Your task to perform on an android device: toggle data saver in the chrome app Image 0: 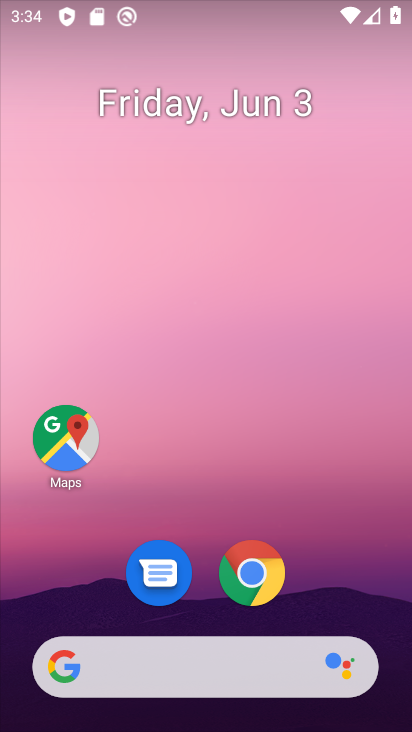
Step 0: click (234, 584)
Your task to perform on an android device: toggle data saver in the chrome app Image 1: 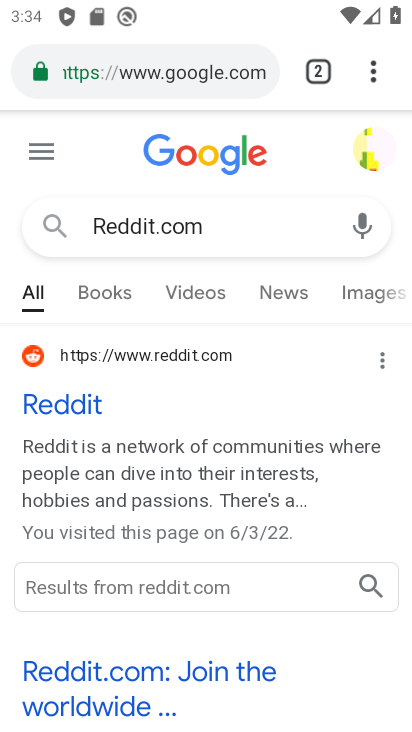
Step 1: click (371, 68)
Your task to perform on an android device: toggle data saver in the chrome app Image 2: 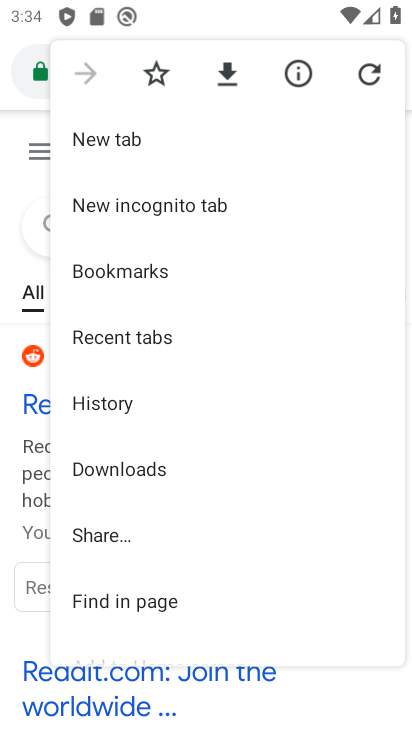
Step 2: drag from (252, 557) to (275, 247)
Your task to perform on an android device: toggle data saver in the chrome app Image 3: 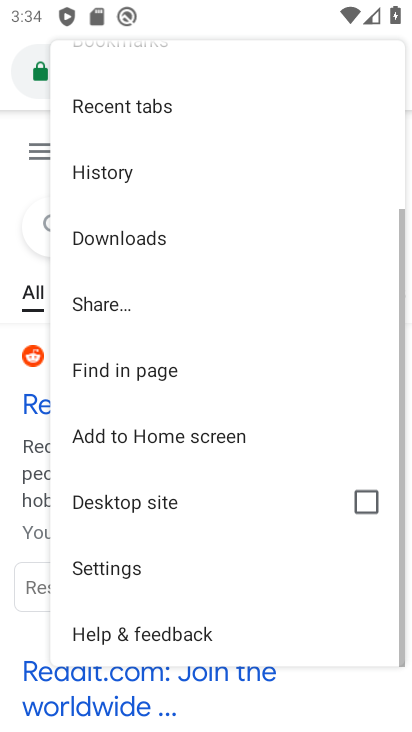
Step 3: click (103, 574)
Your task to perform on an android device: toggle data saver in the chrome app Image 4: 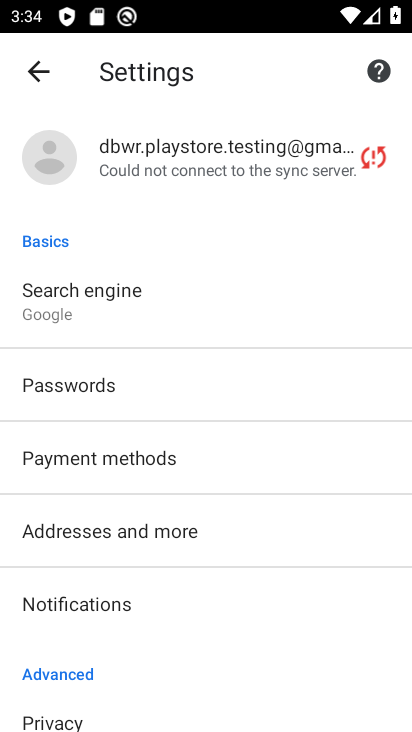
Step 4: drag from (261, 635) to (305, 267)
Your task to perform on an android device: toggle data saver in the chrome app Image 5: 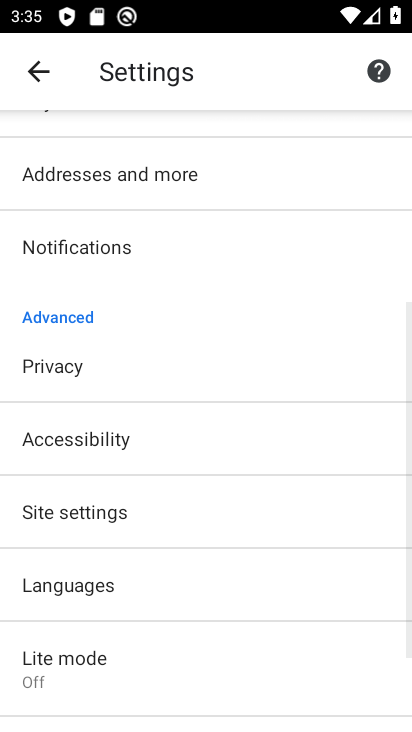
Step 5: click (51, 665)
Your task to perform on an android device: toggle data saver in the chrome app Image 6: 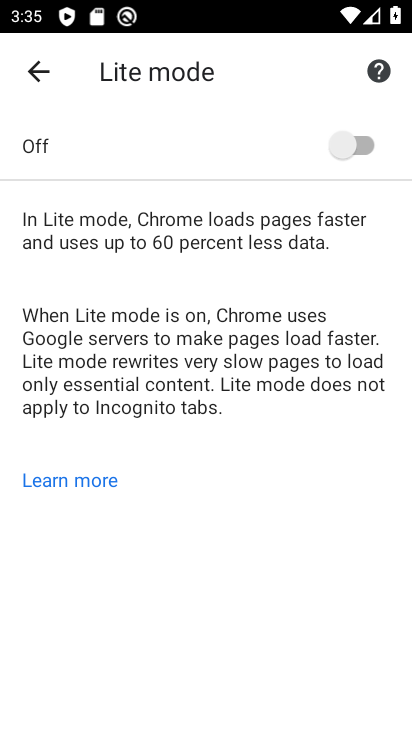
Step 6: click (355, 145)
Your task to perform on an android device: toggle data saver in the chrome app Image 7: 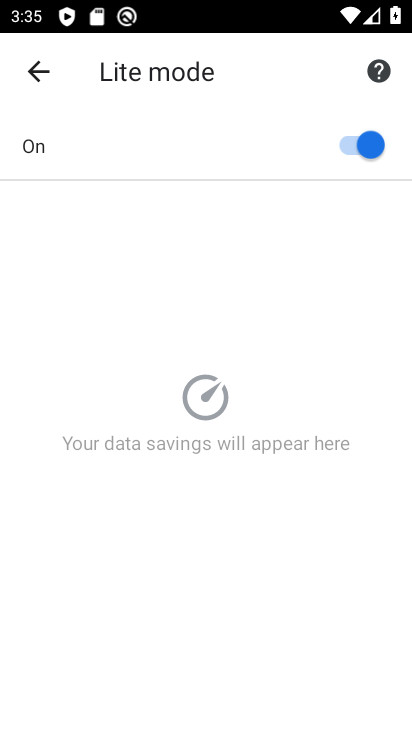
Step 7: task complete